Your task to perform on an android device: see sites visited before in the chrome app Image 0: 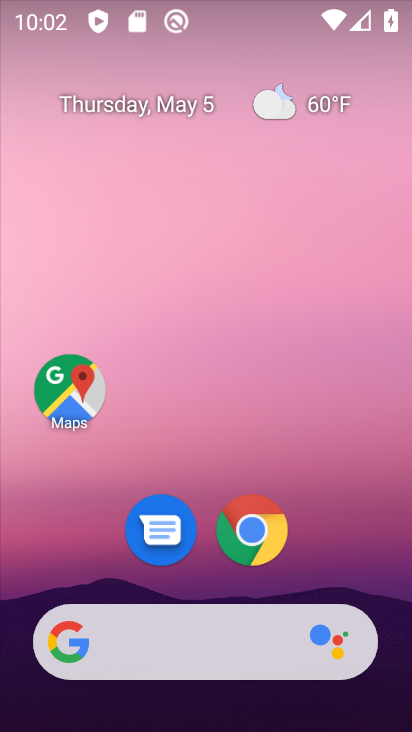
Step 0: drag from (274, 629) to (141, 56)
Your task to perform on an android device: see sites visited before in the chrome app Image 1: 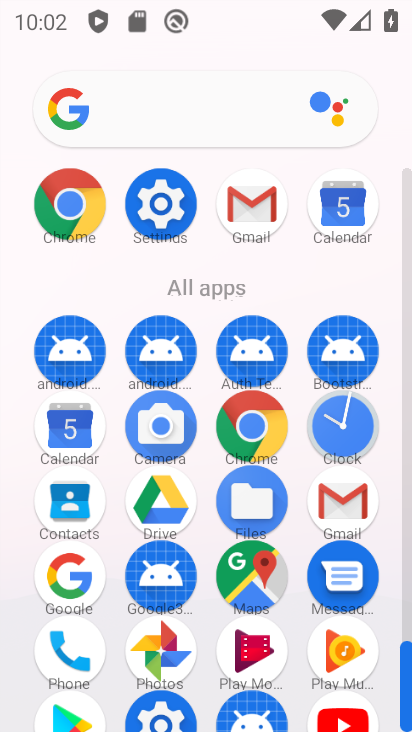
Step 1: click (247, 435)
Your task to perform on an android device: see sites visited before in the chrome app Image 2: 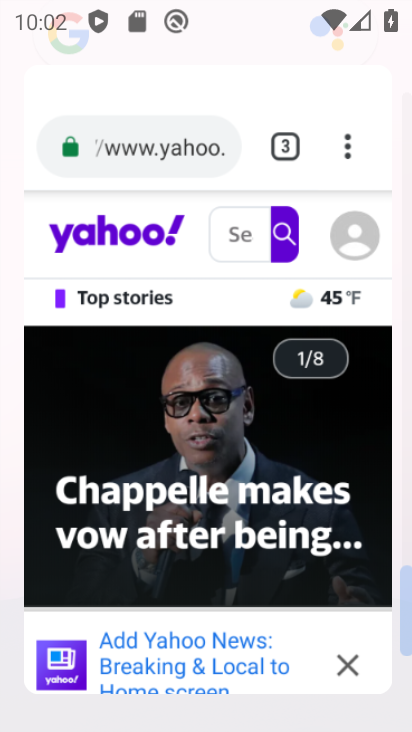
Step 2: click (247, 435)
Your task to perform on an android device: see sites visited before in the chrome app Image 3: 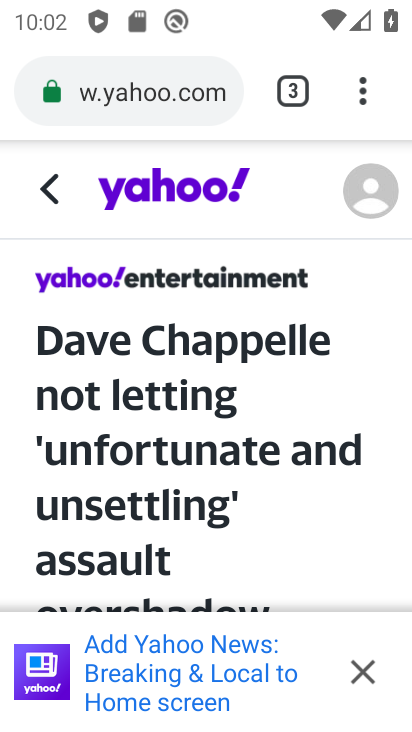
Step 3: press home button
Your task to perform on an android device: see sites visited before in the chrome app Image 4: 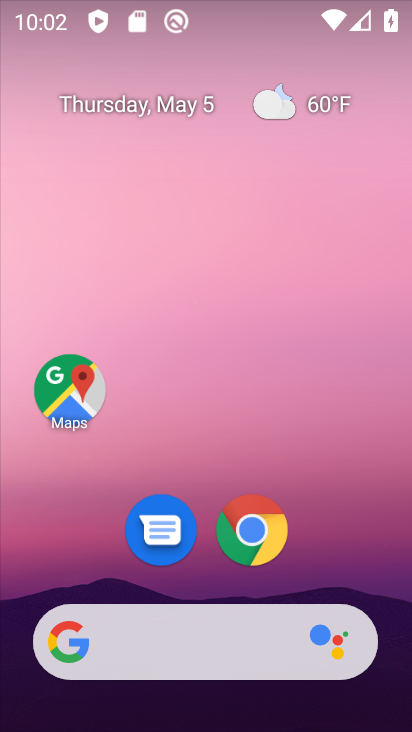
Step 4: drag from (343, 584) to (177, 35)
Your task to perform on an android device: see sites visited before in the chrome app Image 5: 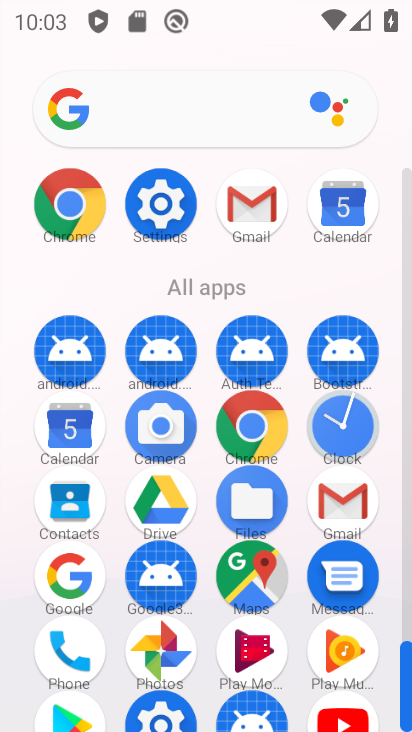
Step 5: click (246, 433)
Your task to perform on an android device: see sites visited before in the chrome app Image 6: 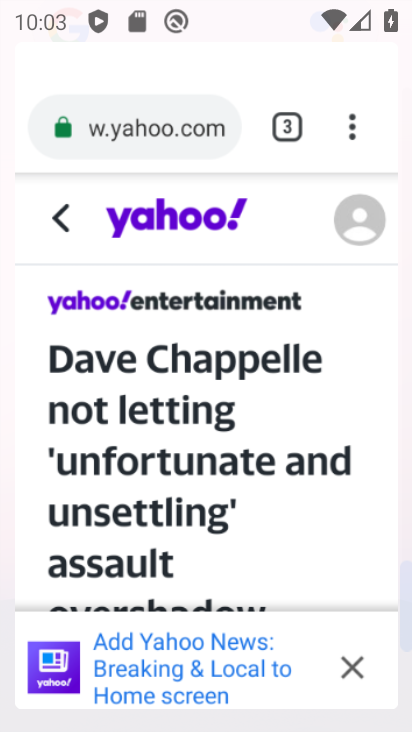
Step 6: click (246, 433)
Your task to perform on an android device: see sites visited before in the chrome app Image 7: 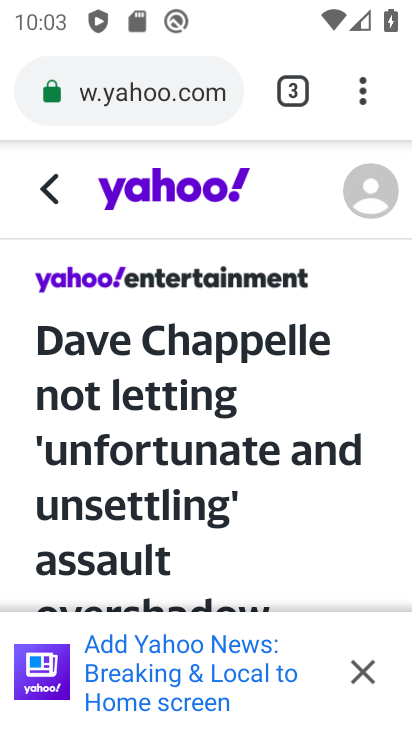
Step 7: drag from (359, 91) to (100, 193)
Your task to perform on an android device: see sites visited before in the chrome app Image 8: 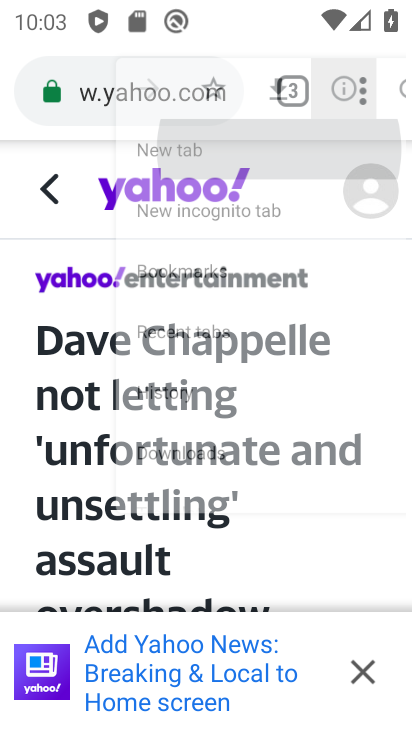
Step 8: click (100, 193)
Your task to perform on an android device: see sites visited before in the chrome app Image 9: 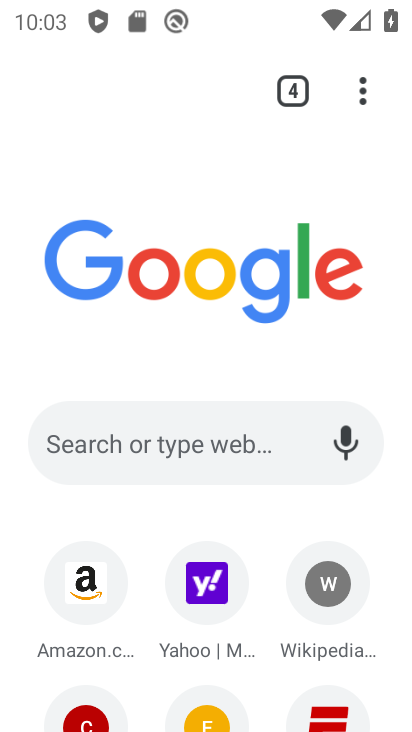
Step 9: drag from (363, 94) to (106, 437)
Your task to perform on an android device: see sites visited before in the chrome app Image 10: 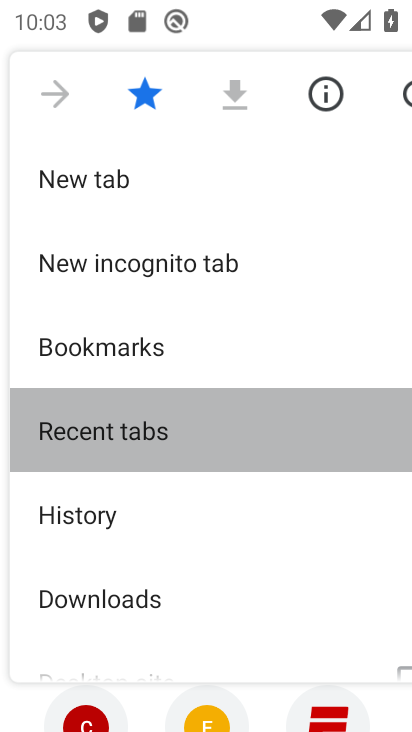
Step 10: click (106, 437)
Your task to perform on an android device: see sites visited before in the chrome app Image 11: 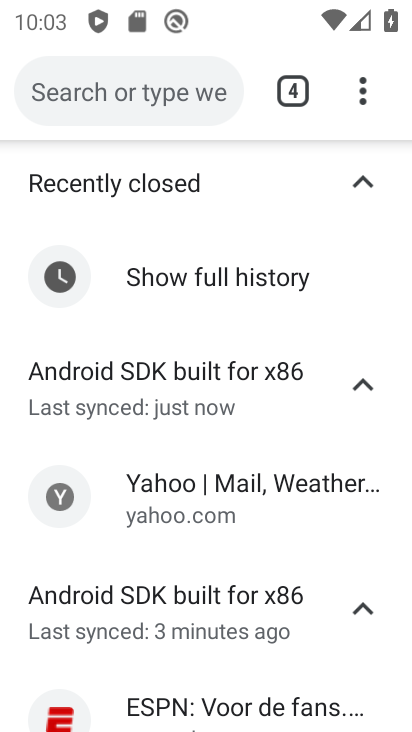
Step 11: drag from (200, 512) to (179, 34)
Your task to perform on an android device: see sites visited before in the chrome app Image 12: 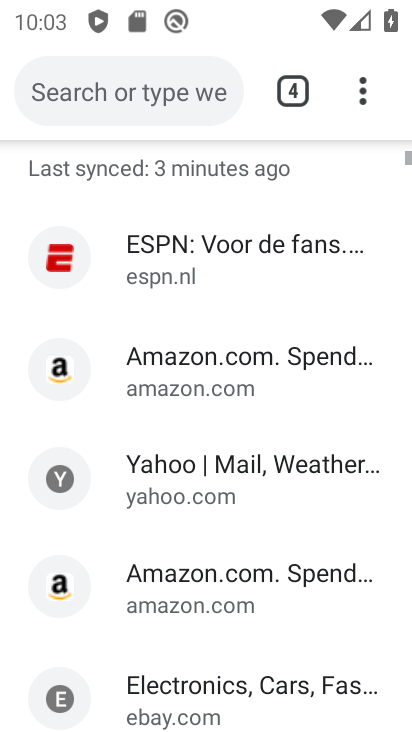
Step 12: drag from (192, 491) to (211, 116)
Your task to perform on an android device: see sites visited before in the chrome app Image 13: 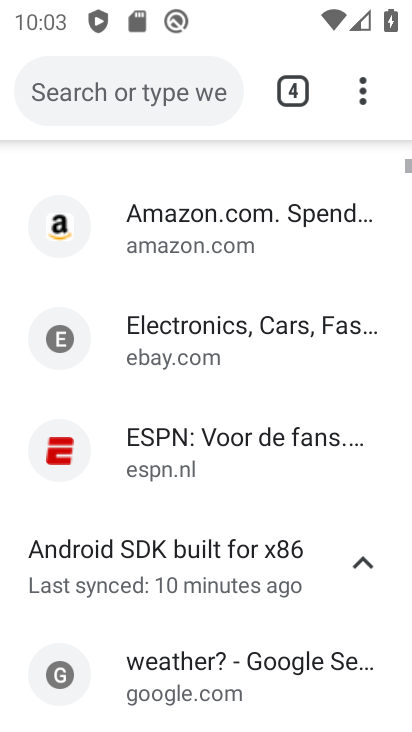
Step 13: drag from (249, 565) to (236, 168)
Your task to perform on an android device: see sites visited before in the chrome app Image 14: 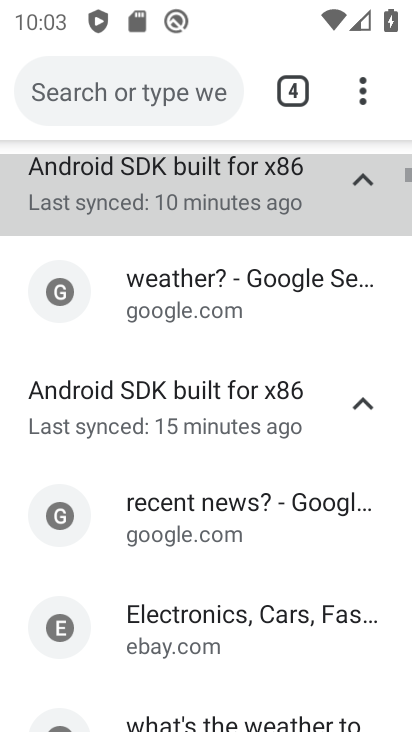
Step 14: drag from (235, 603) to (189, 183)
Your task to perform on an android device: see sites visited before in the chrome app Image 15: 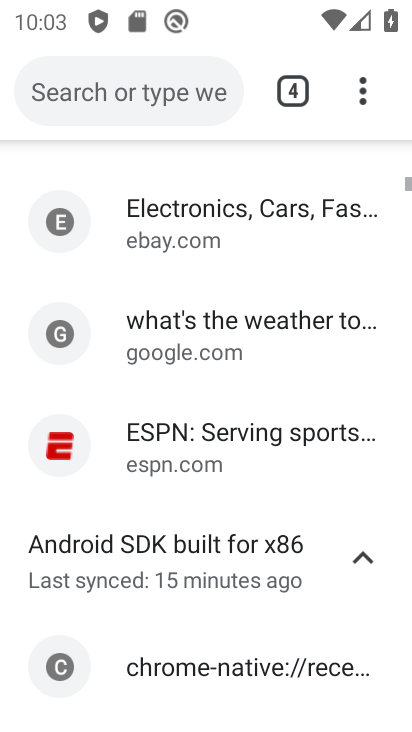
Step 15: drag from (213, 556) to (217, 219)
Your task to perform on an android device: see sites visited before in the chrome app Image 16: 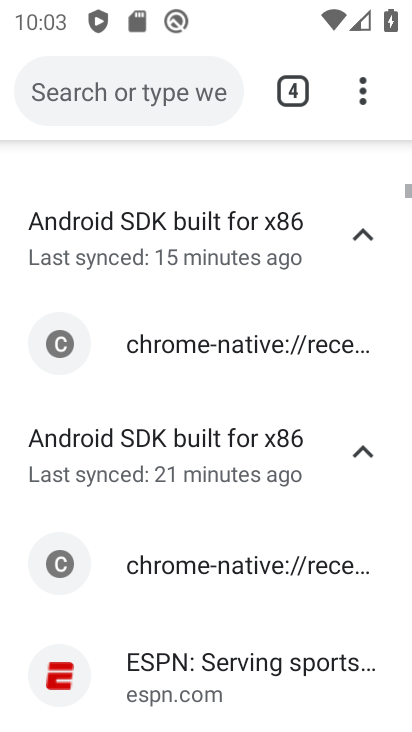
Step 16: drag from (215, 217) to (318, 678)
Your task to perform on an android device: see sites visited before in the chrome app Image 17: 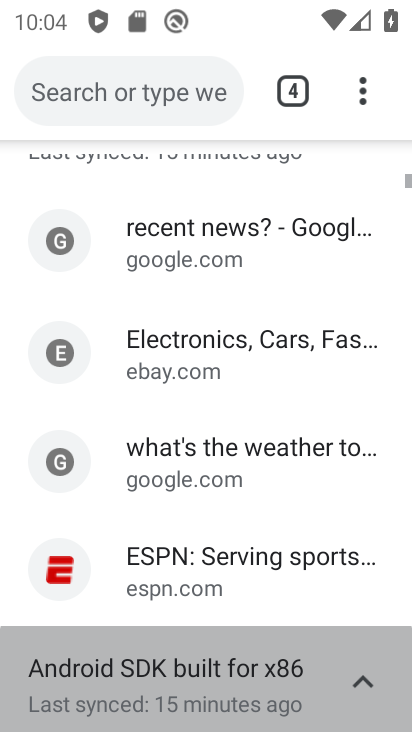
Step 17: drag from (170, 342) to (261, 652)
Your task to perform on an android device: see sites visited before in the chrome app Image 18: 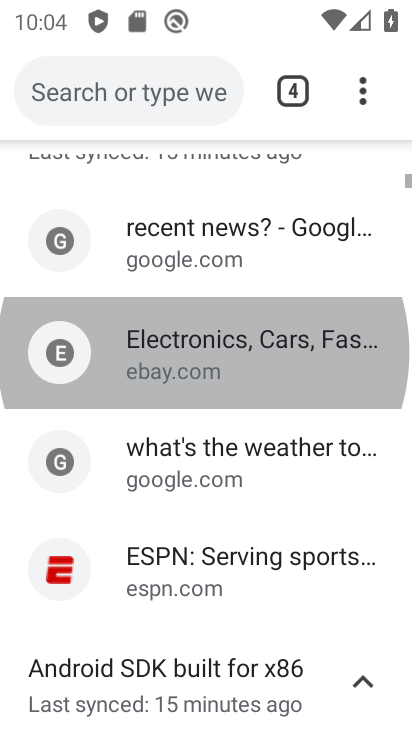
Step 18: drag from (140, 268) to (287, 621)
Your task to perform on an android device: see sites visited before in the chrome app Image 19: 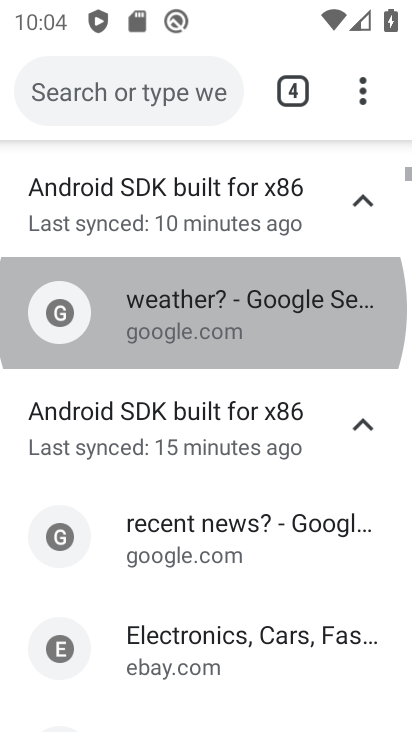
Step 19: drag from (241, 309) to (322, 621)
Your task to perform on an android device: see sites visited before in the chrome app Image 20: 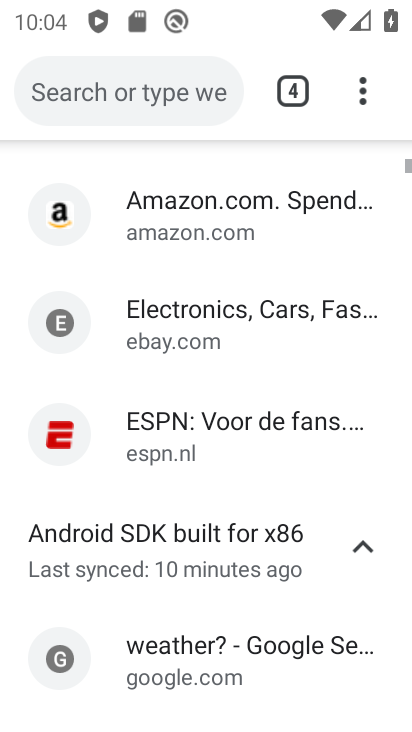
Step 20: drag from (153, 229) to (258, 657)
Your task to perform on an android device: see sites visited before in the chrome app Image 21: 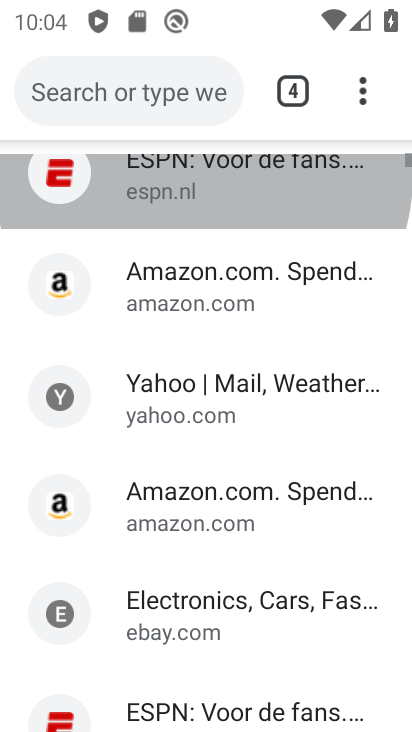
Step 21: drag from (141, 307) to (299, 718)
Your task to perform on an android device: see sites visited before in the chrome app Image 22: 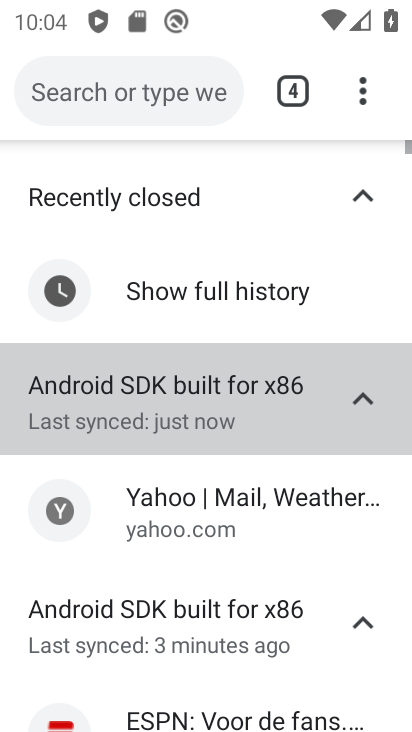
Step 22: drag from (146, 289) to (238, 683)
Your task to perform on an android device: see sites visited before in the chrome app Image 23: 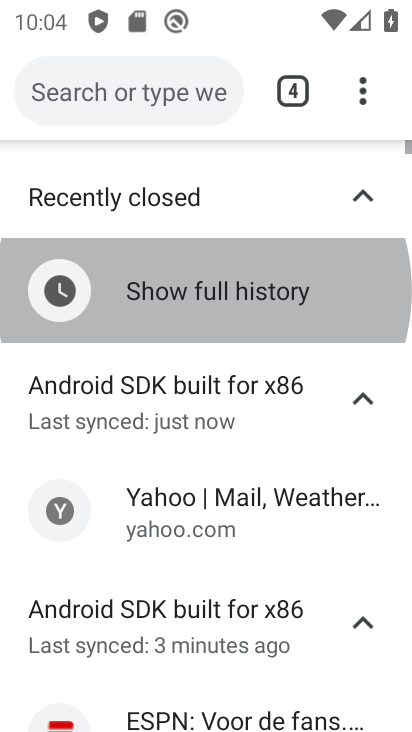
Step 23: drag from (231, 351) to (296, 635)
Your task to perform on an android device: see sites visited before in the chrome app Image 24: 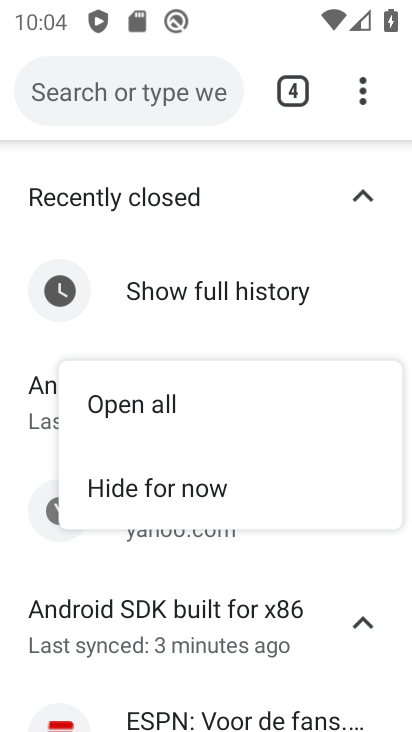
Step 24: click (349, 233)
Your task to perform on an android device: see sites visited before in the chrome app Image 25: 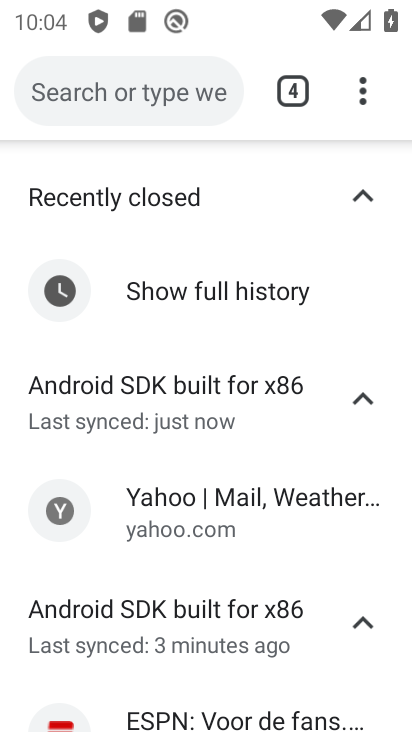
Step 25: task complete